Your task to perform on an android device: Check the news Image 0: 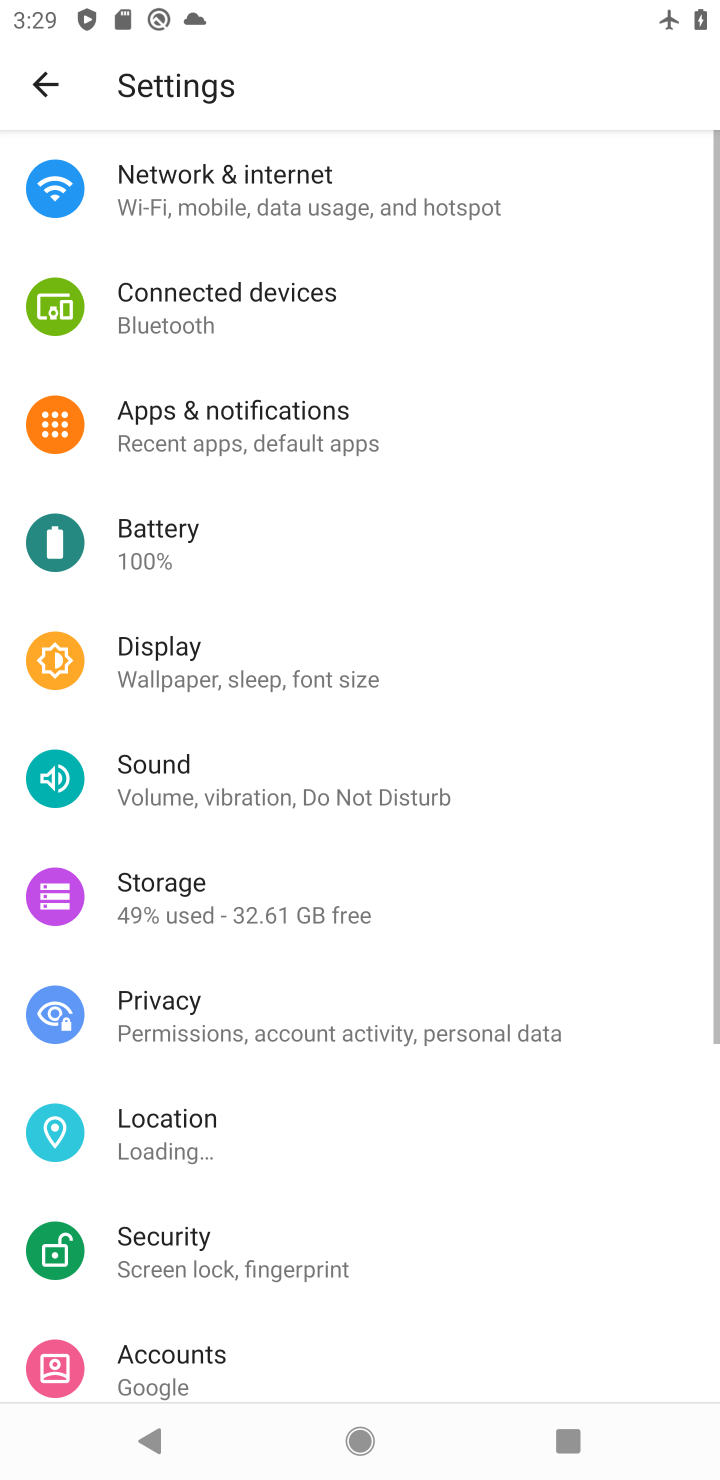
Step 0: press back button
Your task to perform on an android device: Check the news Image 1: 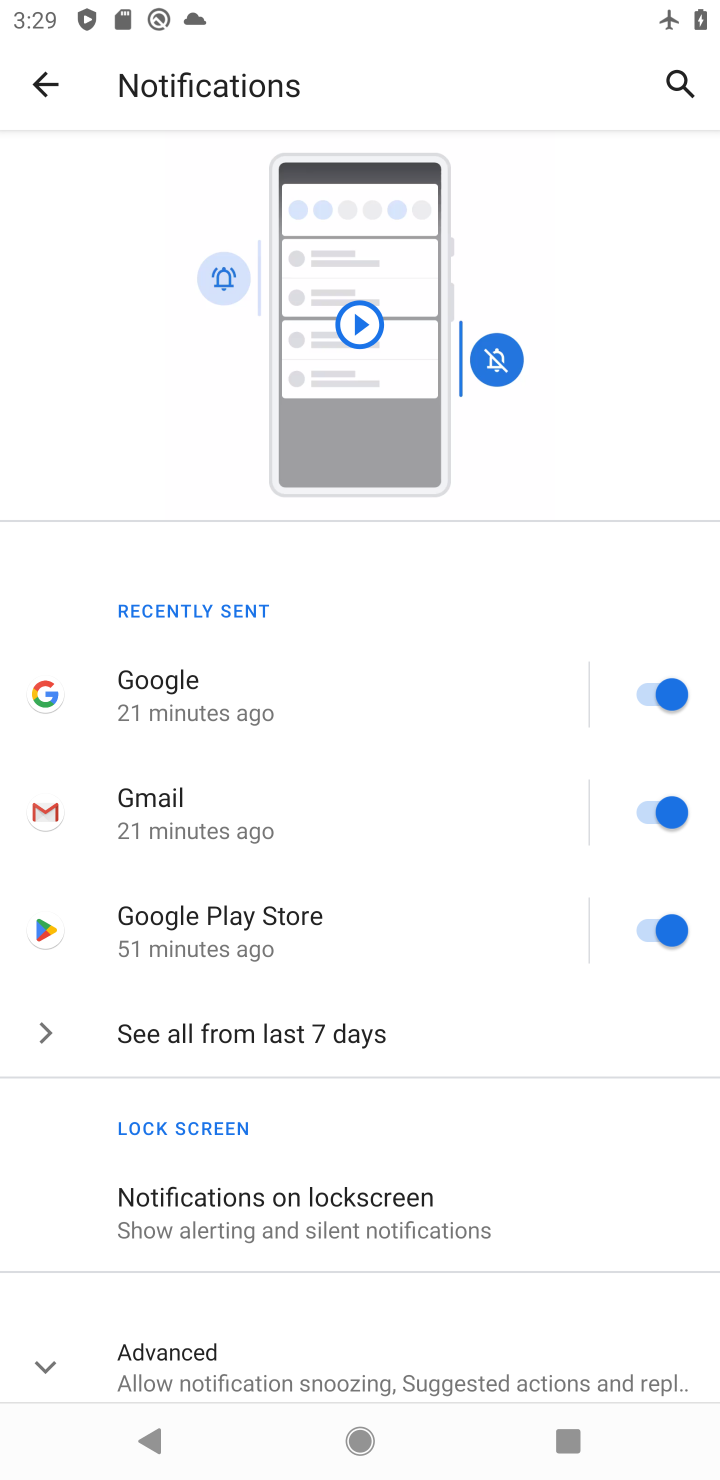
Step 1: press home button
Your task to perform on an android device: Check the news Image 2: 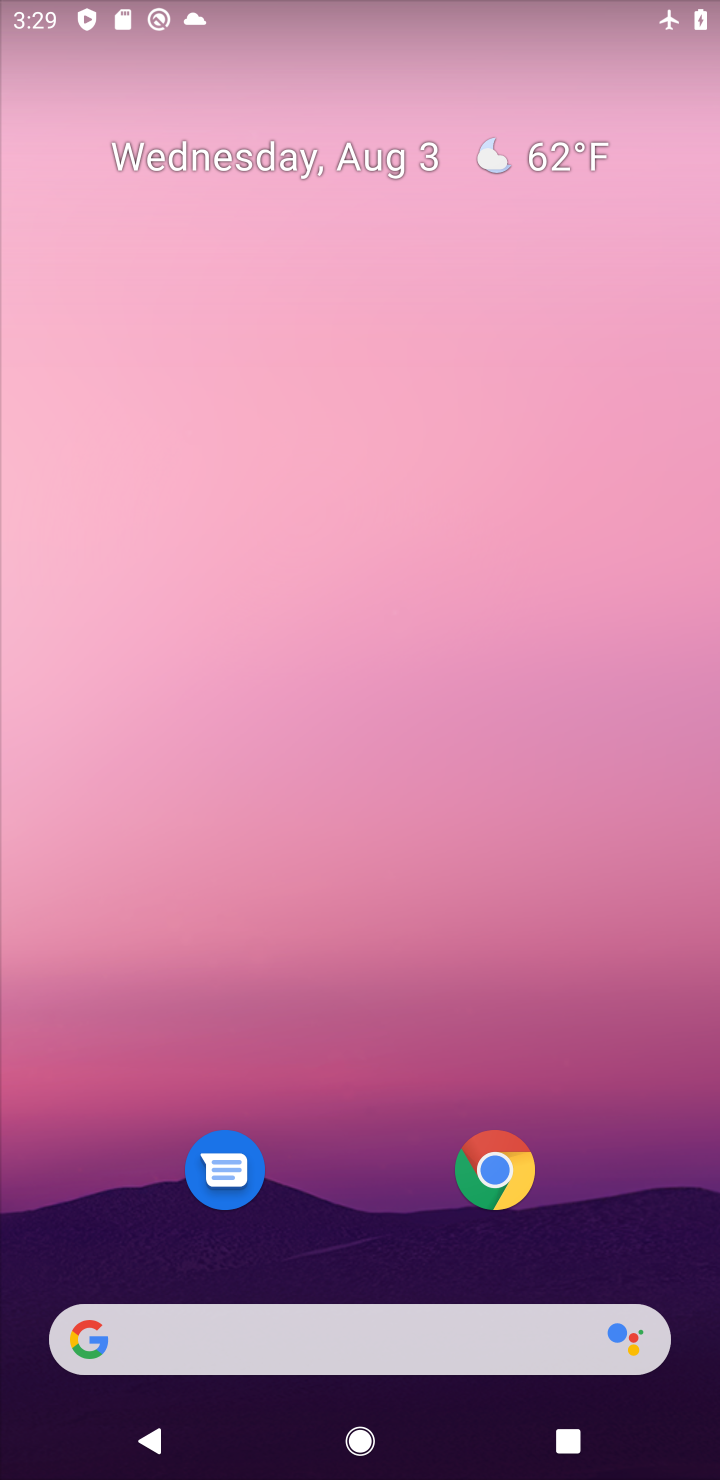
Step 2: click (285, 1340)
Your task to perform on an android device: Check the news Image 3: 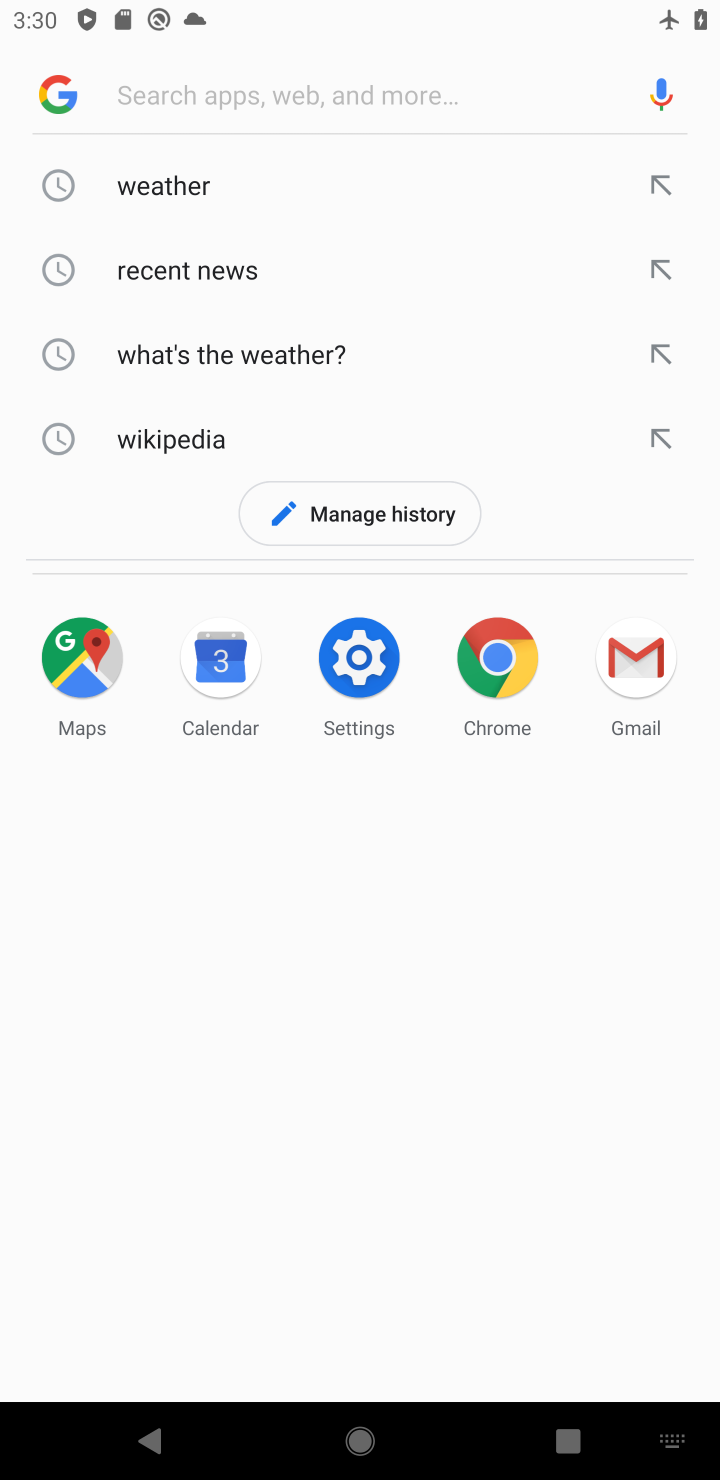
Step 3: type "news"
Your task to perform on an android device: Check the news Image 4: 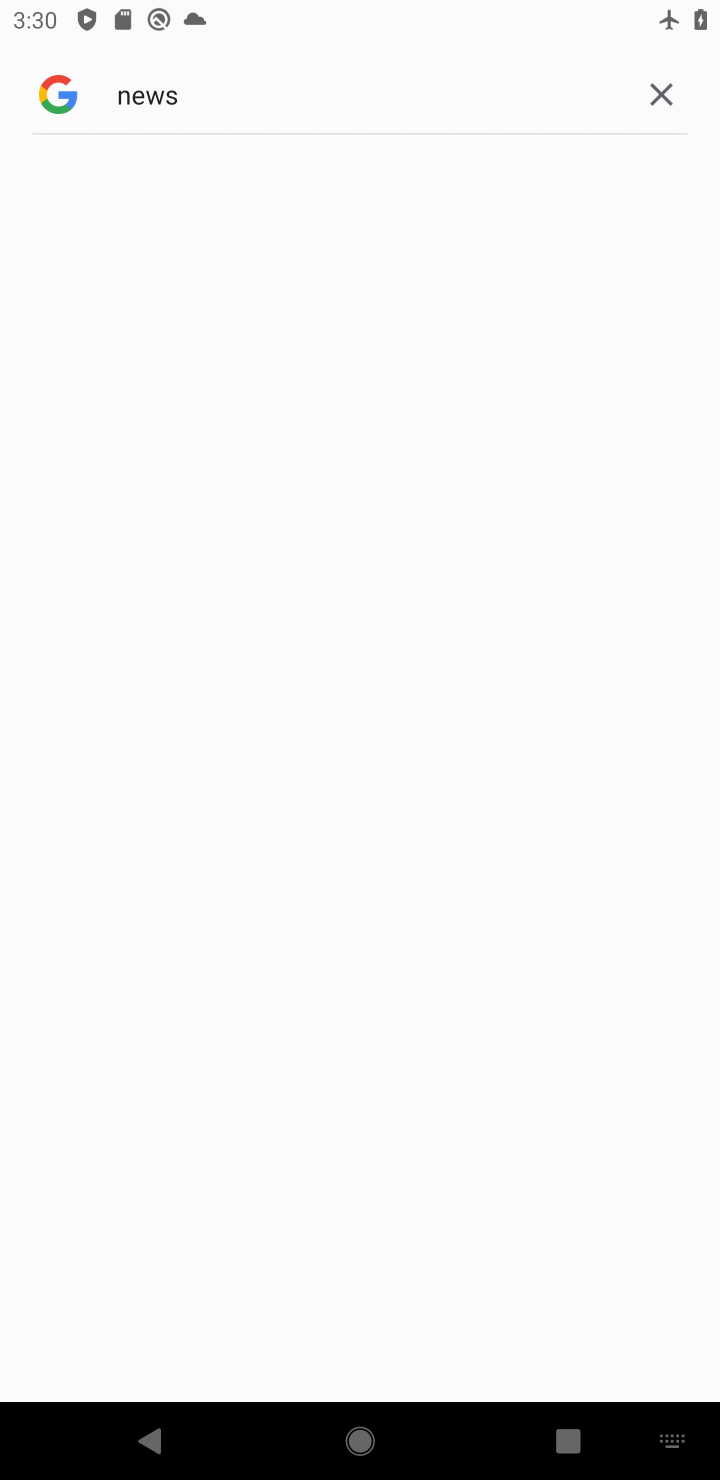
Step 4: click (668, 103)
Your task to perform on an android device: Check the news Image 5: 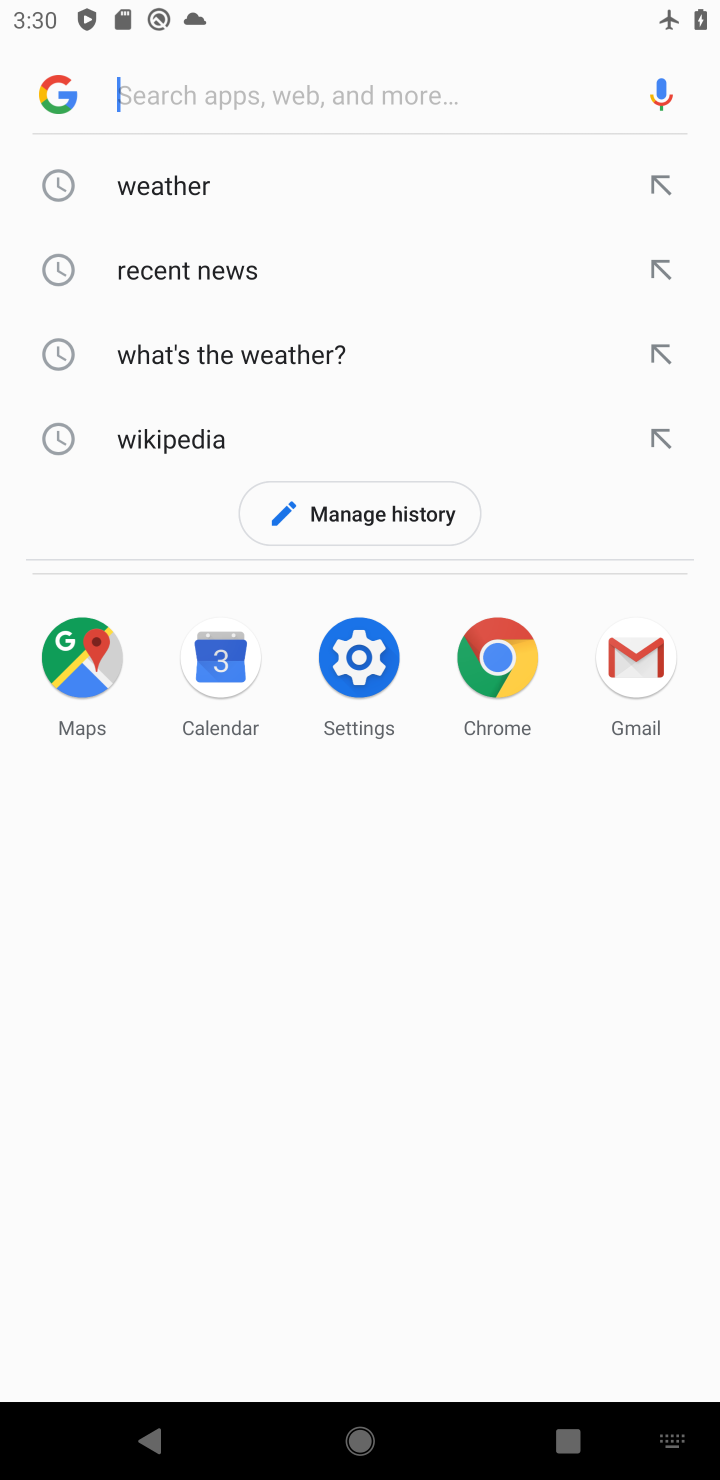
Step 5: type "news"
Your task to perform on an android device: Check the news Image 6: 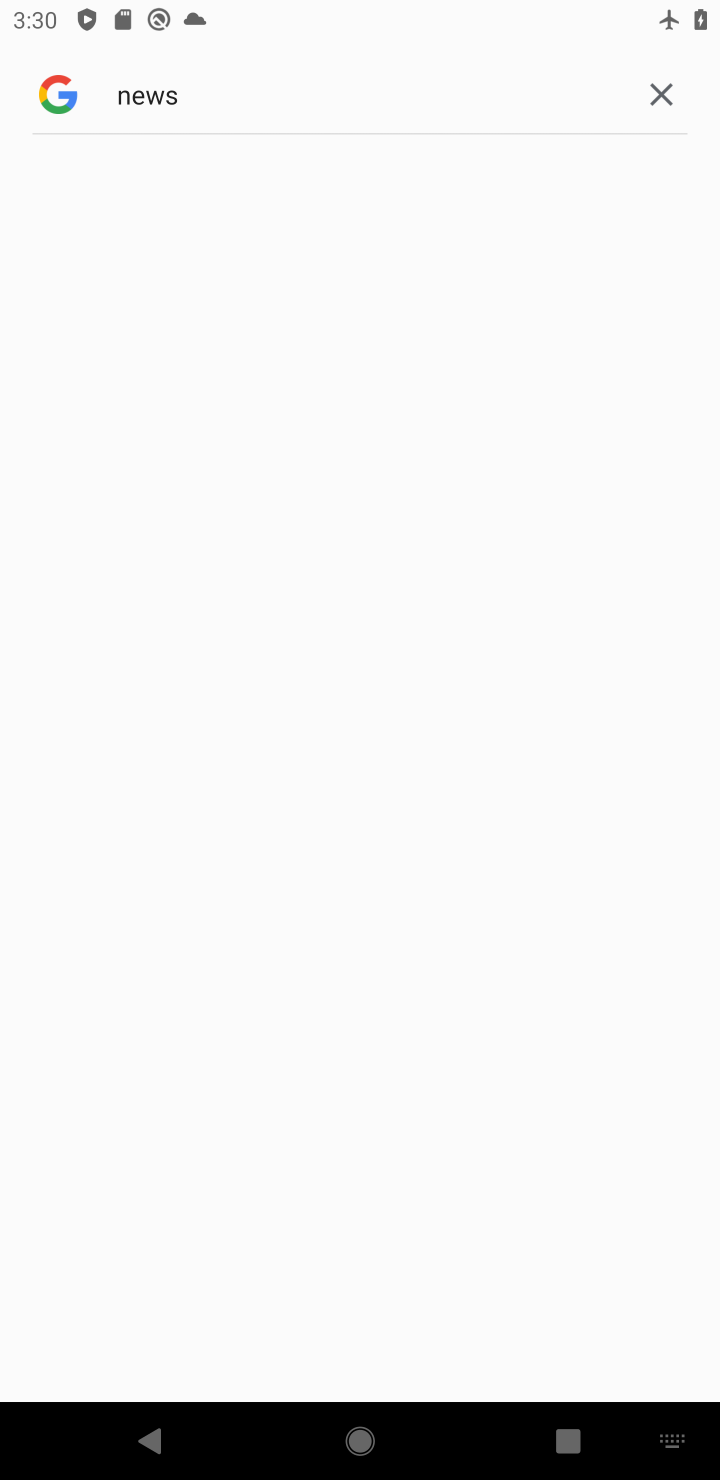
Step 6: click (670, 91)
Your task to perform on an android device: Check the news Image 7: 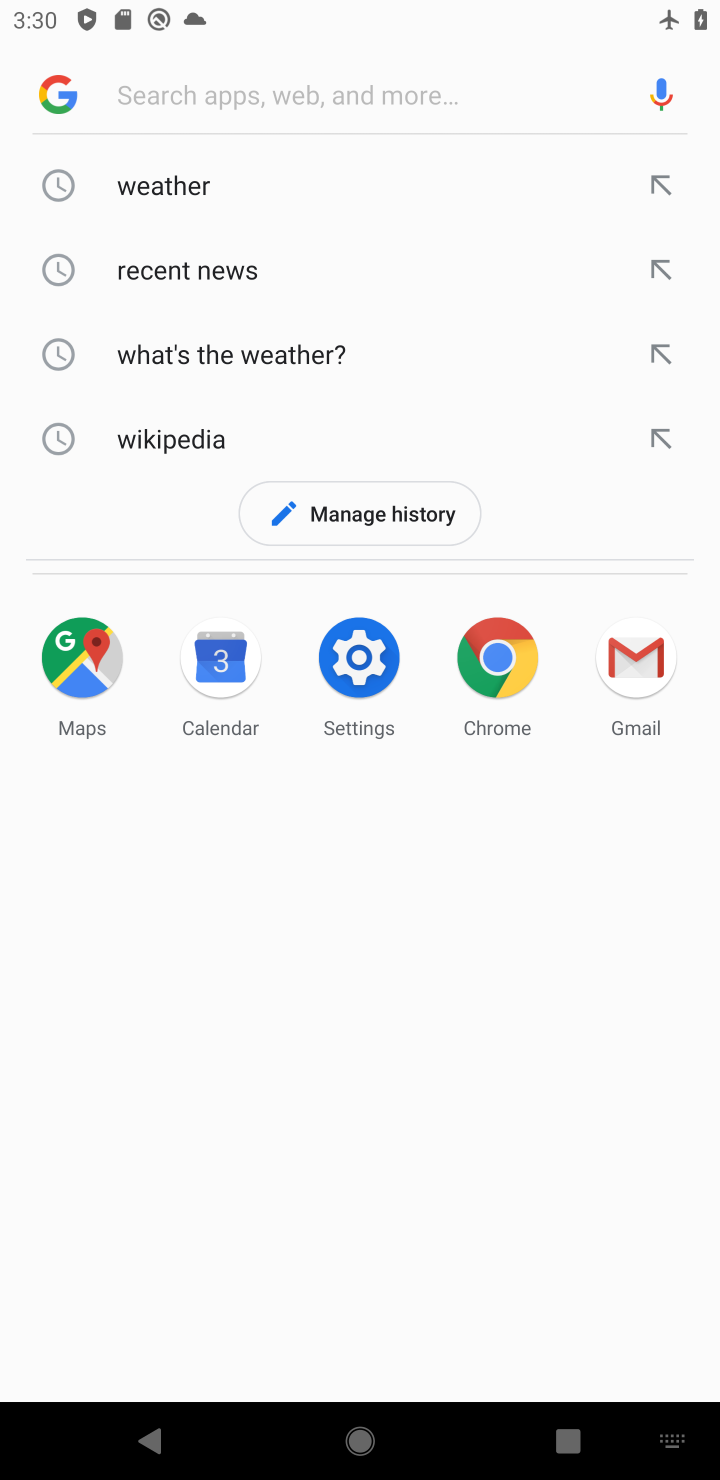
Step 7: task complete